Your task to perform on an android device: Open Google Image 0: 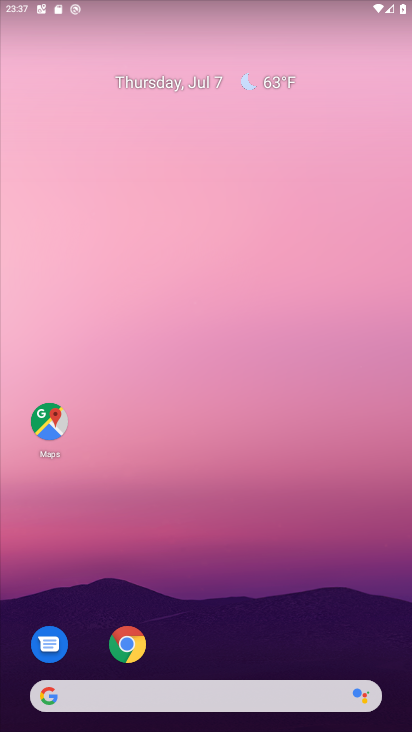
Step 0: drag from (224, 651) to (248, 136)
Your task to perform on an android device: Open Google Image 1: 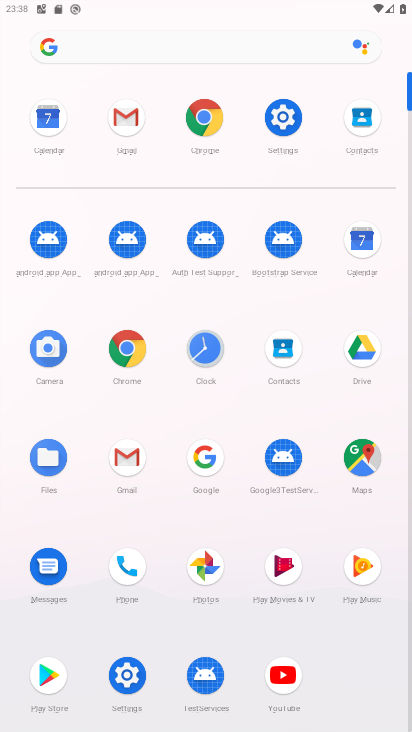
Step 1: click (202, 463)
Your task to perform on an android device: Open Google Image 2: 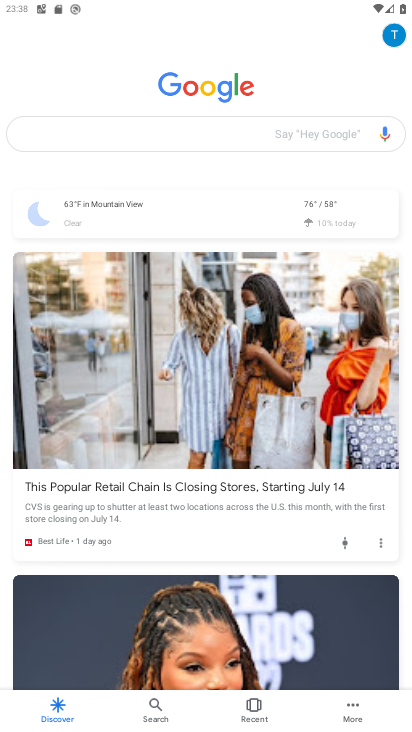
Step 2: task complete